Your task to perform on an android device: Go to Yahoo.com Image 0: 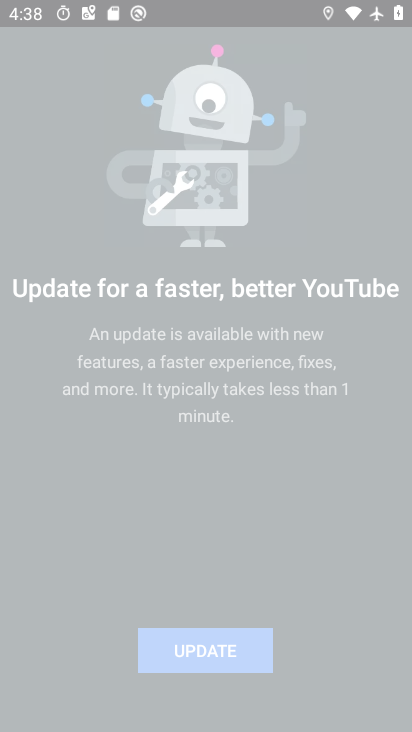
Step 0: drag from (270, 552) to (161, 176)
Your task to perform on an android device: Go to Yahoo.com Image 1: 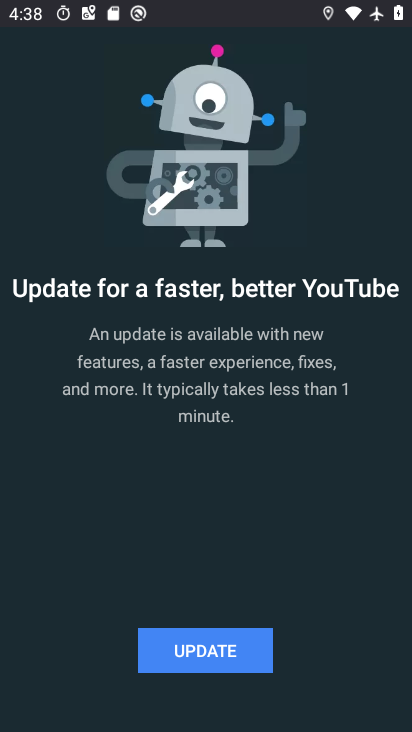
Step 1: press back button
Your task to perform on an android device: Go to Yahoo.com Image 2: 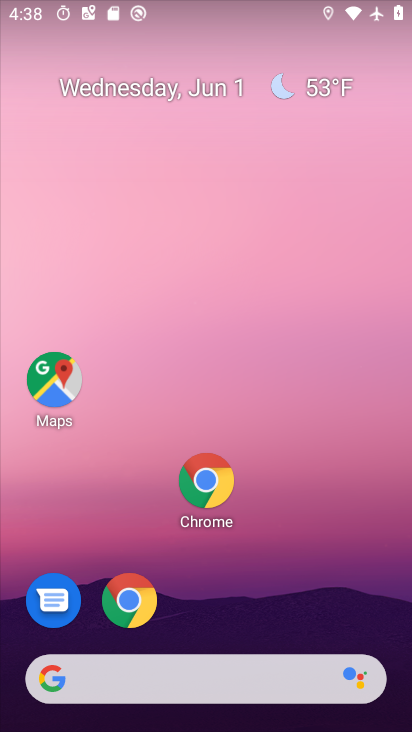
Step 2: drag from (257, 680) to (126, 175)
Your task to perform on an android device: Go to Yahoo.com Image 3: 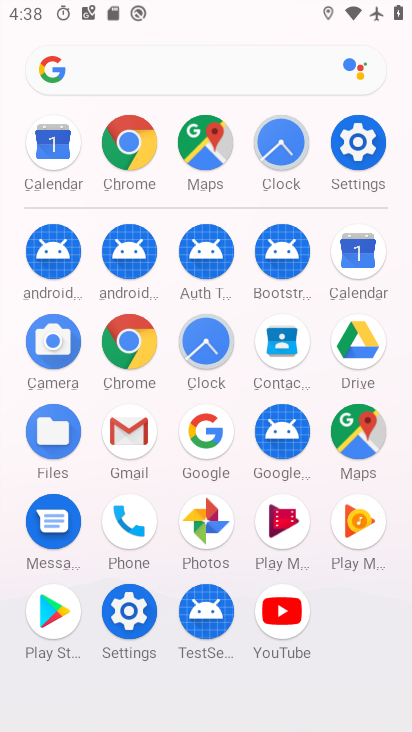
Step 3: click (123, 144)
Your task to perform on an android device: Go to Yahoo.com Image 4: 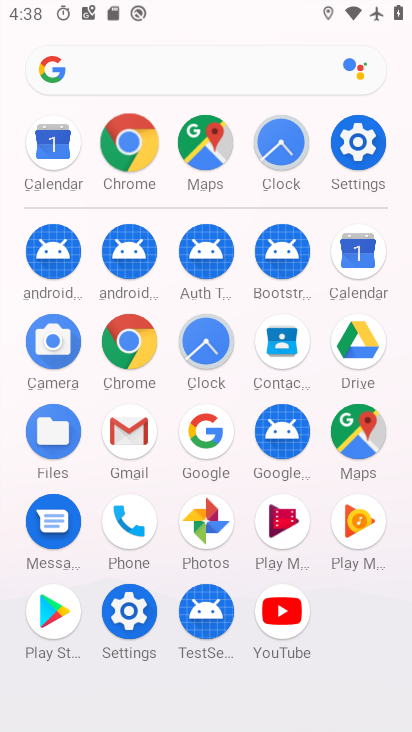
Step 4: click (123, 143)
Your task to perform on an android device: Go to Yahoo.com Image 5: 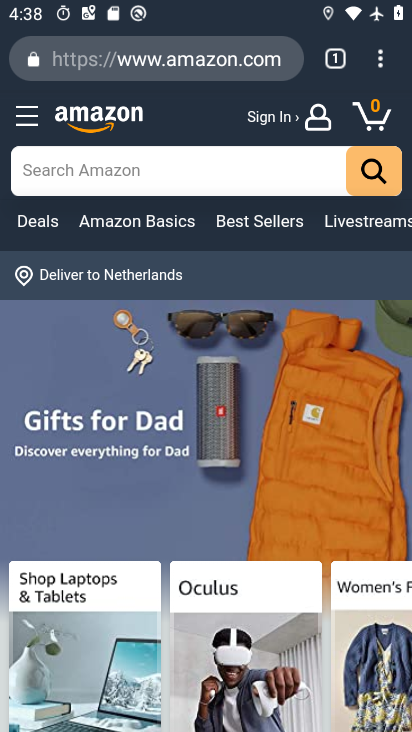
Step 5: drag from (382, 71) to (174, 120)
Your task to perform on an android device: Go to Yahoo.com Image 6: 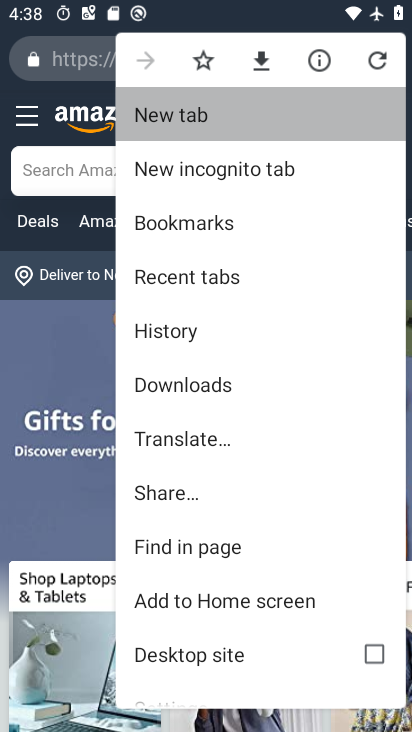
Step 6: click (173, 119)
Your task to perform on an android device: Go to Yahoo.com Image 7: 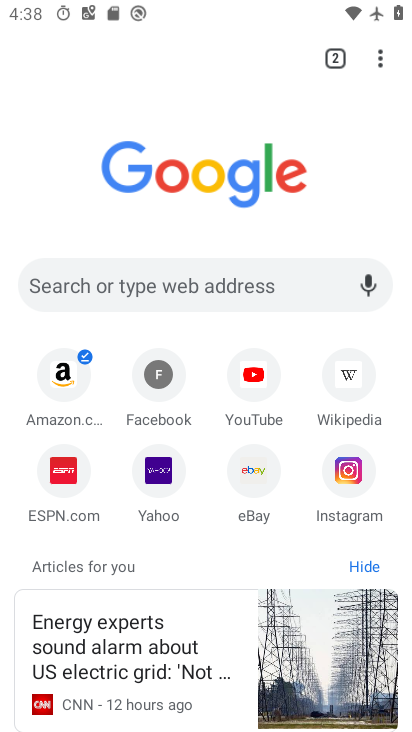
Step 7: click (153, 470)
Your task to perform on an android device: Go to Yahoo.com Image 8: 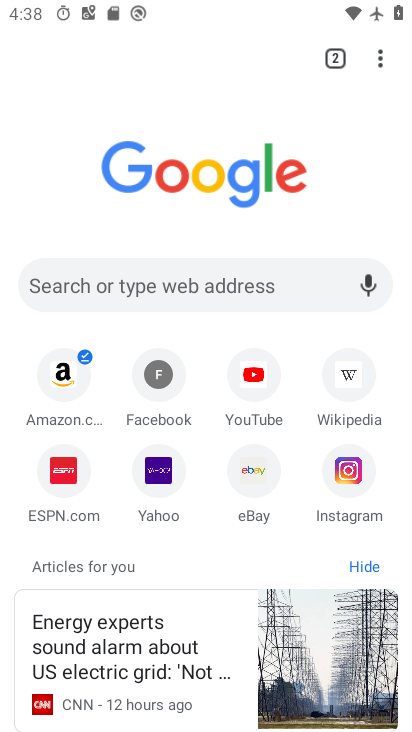
Step 8: click (152, 467)
Your task to perform on an android device: Go to Yahoo.com Image 9: 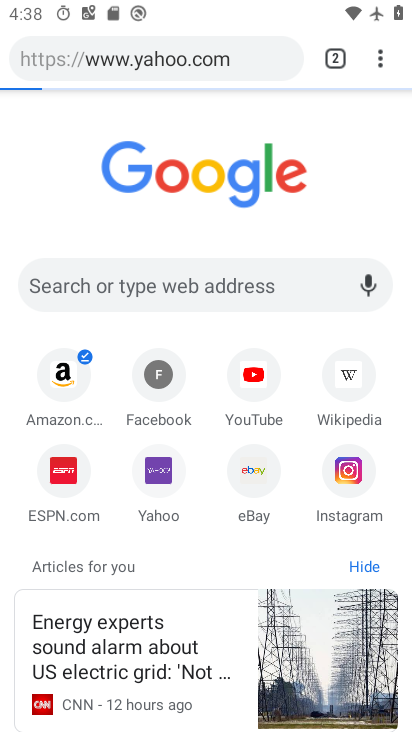
Step 9: click (152, 467)
Your task to perform on an android device: Go to Yahoo.com Image 10: 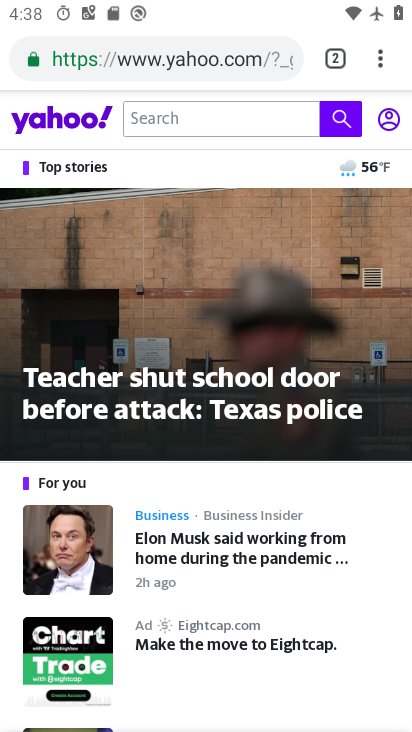
Step 10: task complete